Your task to perform on an android device: change your default location settings in chrome Image 0: 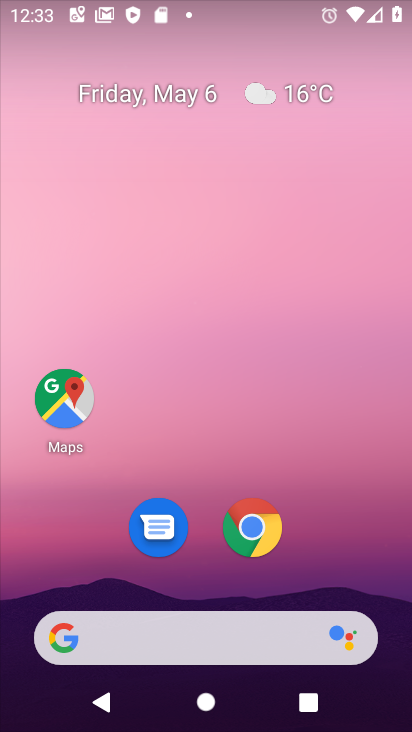
Step 0: click (250, 526)
Your task to perform on an android device: change your default location settings in chrome Image 1: 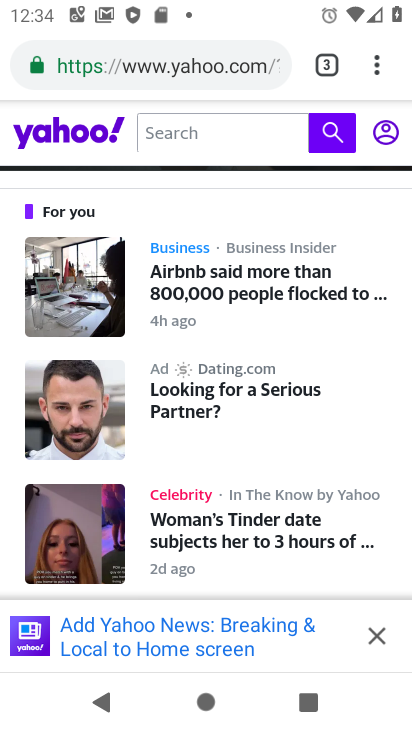
Step 1: drag from (378, 65) to (152, 579)
Your task to perform on an android device: change your default location settings in chrome Image 2: 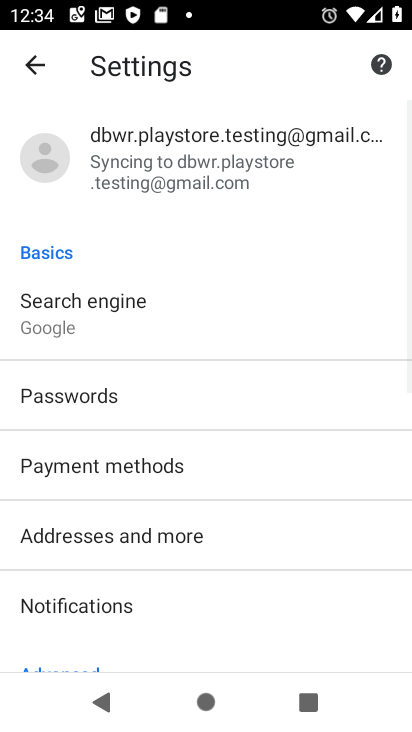
Step 2: drag from (121, 636) to (119, 249)
Your task to perform on an android device: change your default location settings in chrome Image 3: 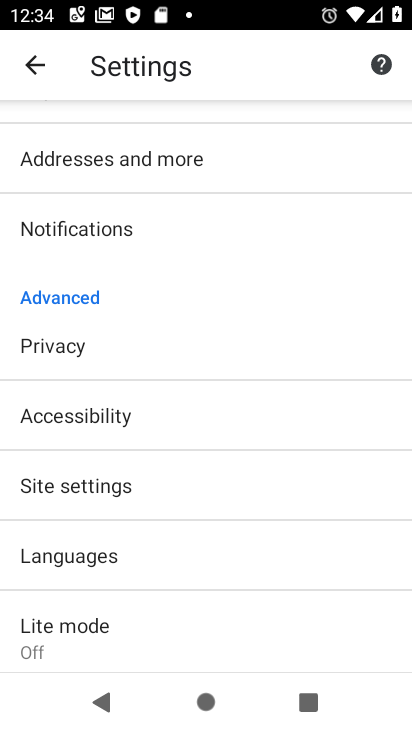
Step 3: click (93, 487)
Your task to perform on an android device: change your default location settings in chrome Image 4: 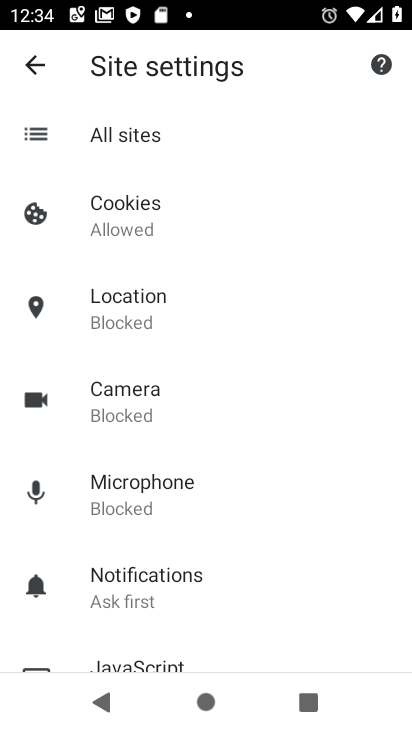
Step 4: click (112, 308)
Your task to perform on an android device: change your default location settings in chrome Image 5: 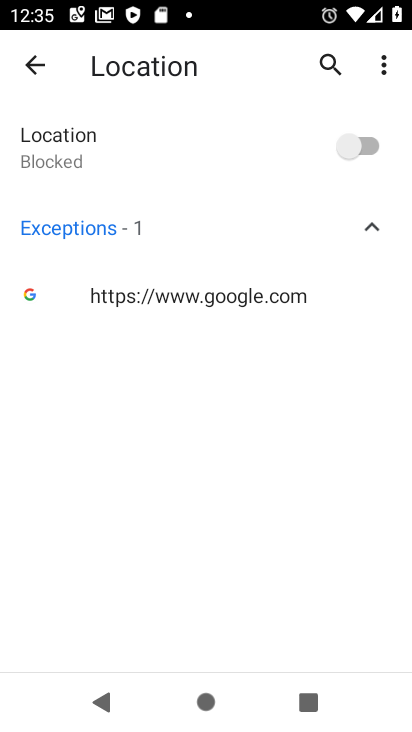
Step 5: task complete